Your task to perform on an android device: open chrome privacy settings Image 0: 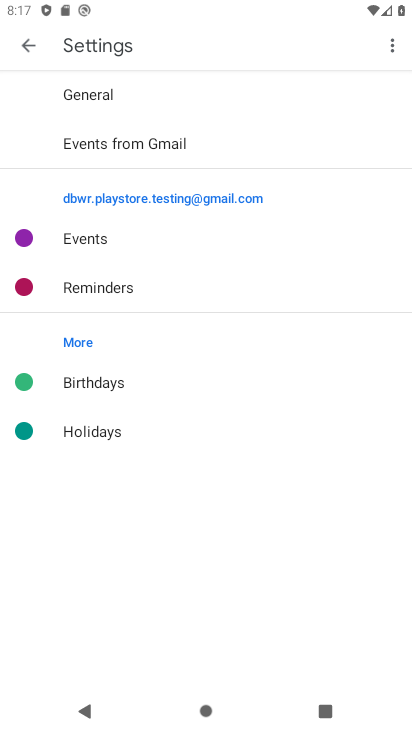
Step 0: press home button
Your task to perform on an android device: open chrome privacy settings Image 1: 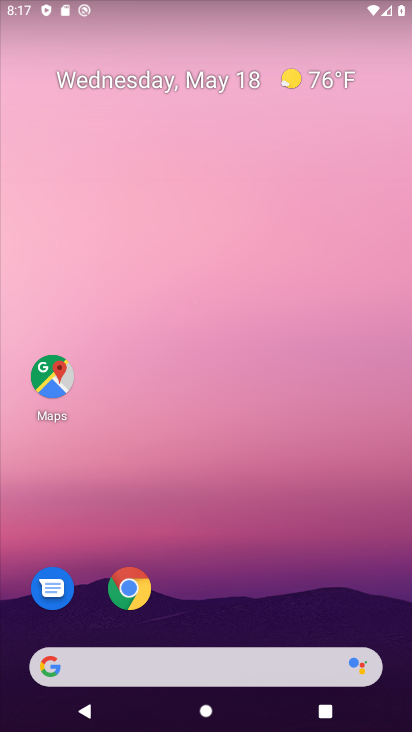
Step 1: drag from (230, 617) to (219, 88)
Your task to perform on an android device: open chrome privacy settings Image 2: 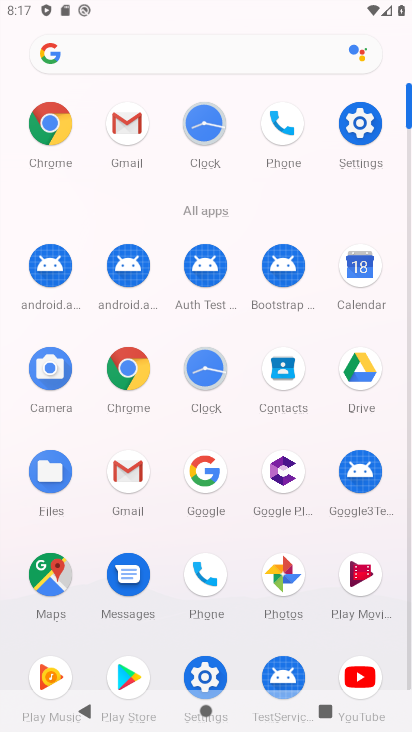
Step 2: click (364, 124)
Your task to perform on an android device: open chrome privacy settings Image 3: 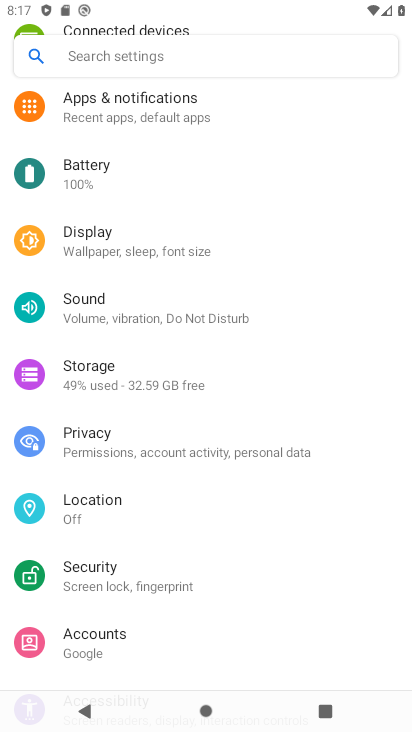
Step 3: press home button
Your task to perform on an android device: open chrome privacy settings Image 4: 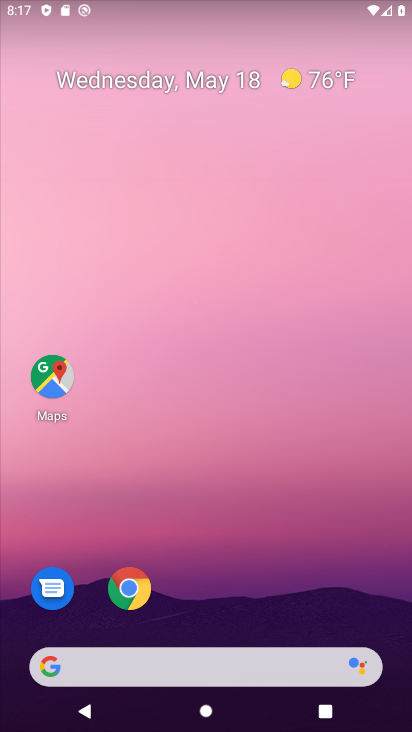
Step 4: click (140, 590)
Your task to perform on an android device: open chrome privacy settings Image 5: 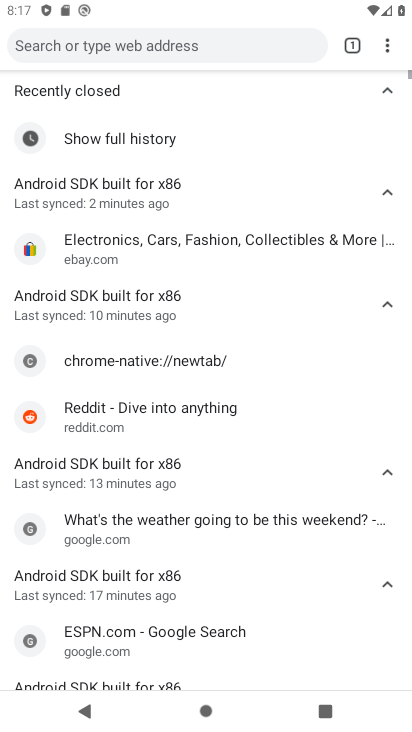
Step 5: click (389, 49)
Your task to perform on an android device: open chrome privacy settings Image 6: 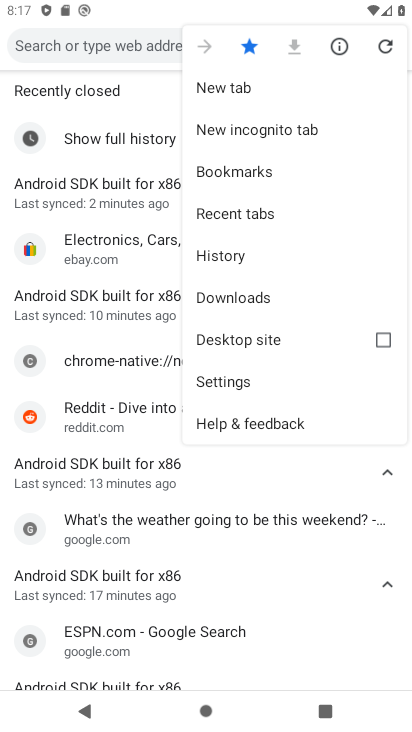
Step 6: click (233, 382)
Your task to perform on an android device: open chrome privacy settings Image 7: 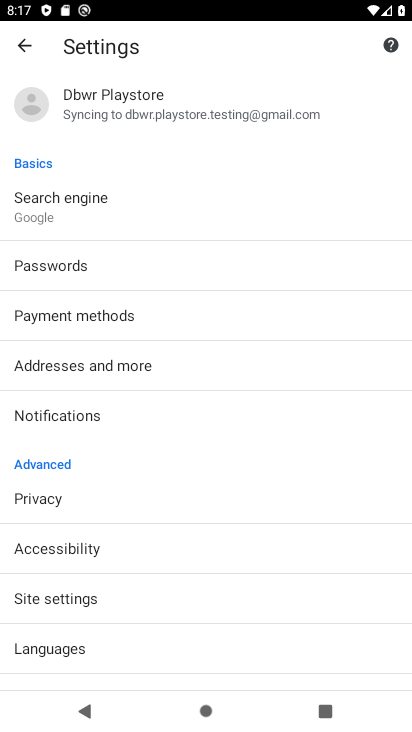
Step 7: click (130, 502)
Your task to perform on an android device: open chrome privacy settings Image 8: 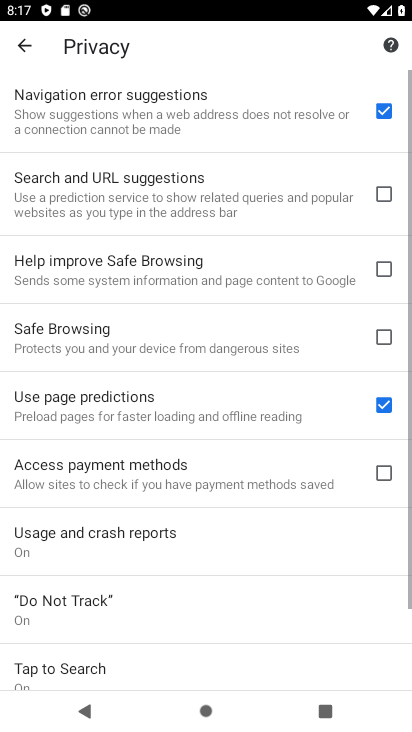
Step 8: task complete